Your task to perform on an android device: open sync settings in chrome Image 0: 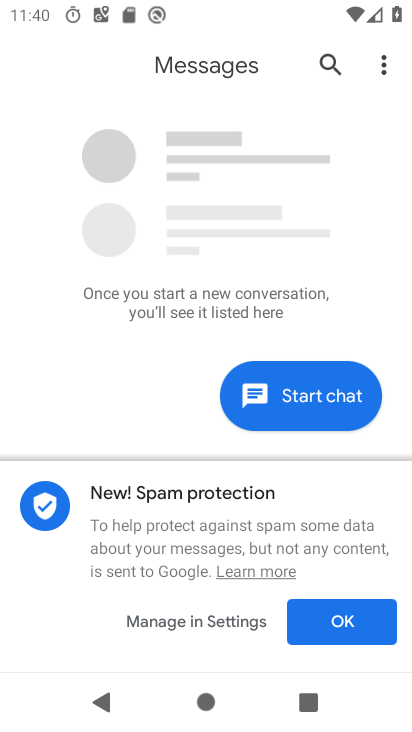
Step 0: press home button
Your task to perform on an android device: open sync settings in chrome Image 1: 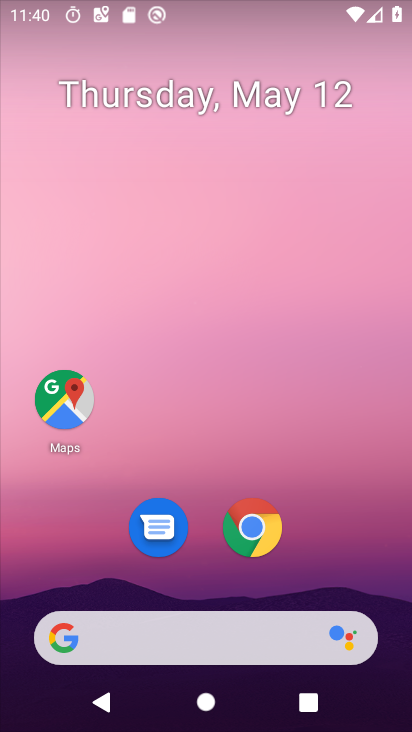
Step 1: click (251, 538)
Your task to perform on an android device: open sync settings in chrome Image 2: 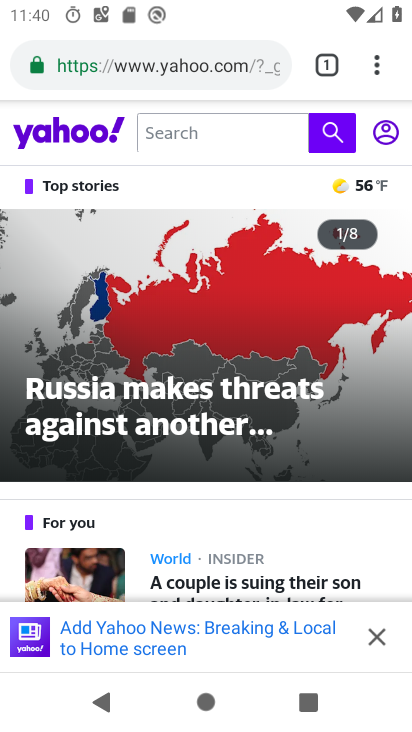
Step 2: click (376, 68)
Your task to perform on an android device: open sync settings in chrome Image 3: 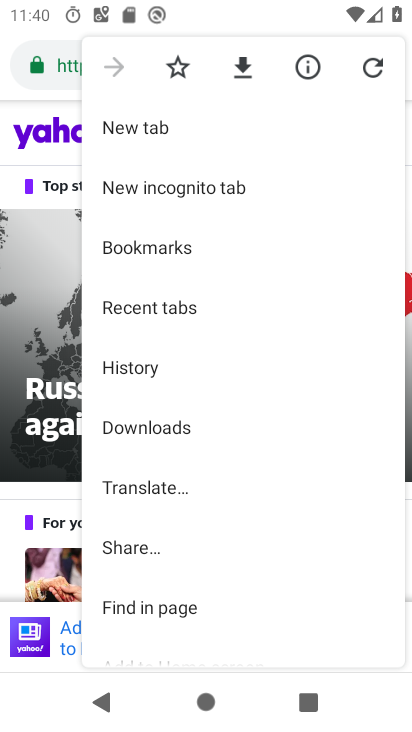
Step 3: drag from (183, 587) to (200, 143)
Your task to perform on an android device: open sync settings in chrome Image 4: 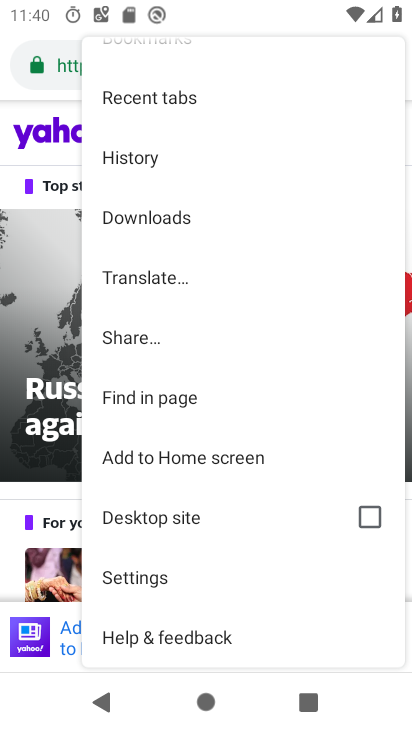
Step 4: click (167, 574)
Your task to perform on an android device: open sync settings in chrome Image 5: 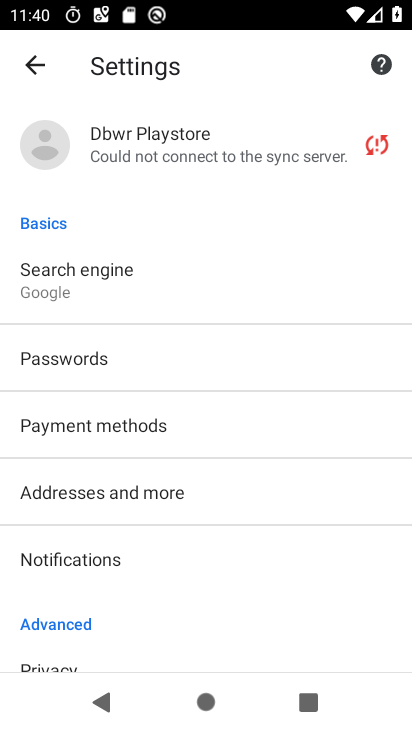
Step 5: click (216, 155)
Your task to perform on an android device: open sync settings in chrome Image 6: 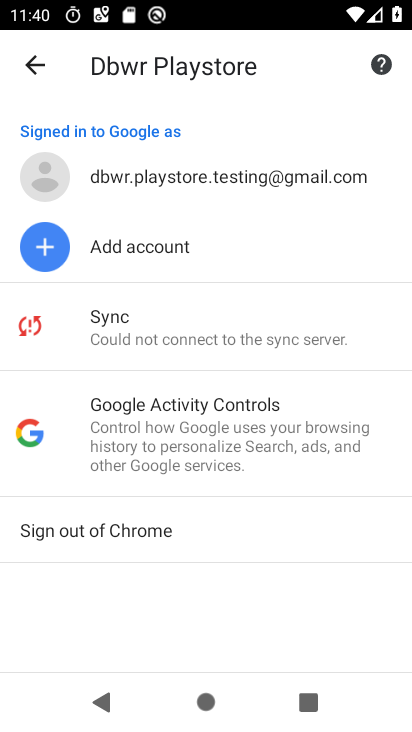
Step 6: click (104, 346)
Your task to perform on an android device: open sync settings in chrome Image 7: 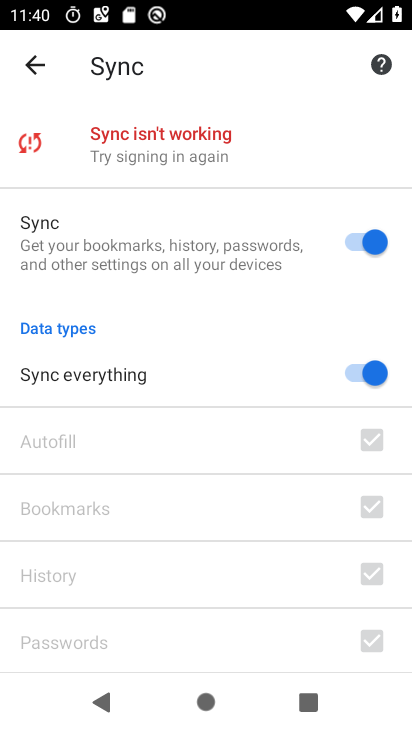
Step 7: task complete